Your task to perform on an android device: Open Wikipedia Image 0: 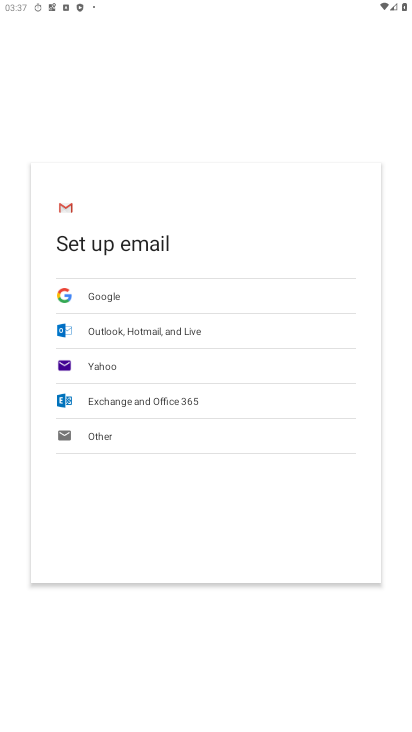
Step 0: press home button
Your task to perform on an android device: Open Wikipedia Image 1: 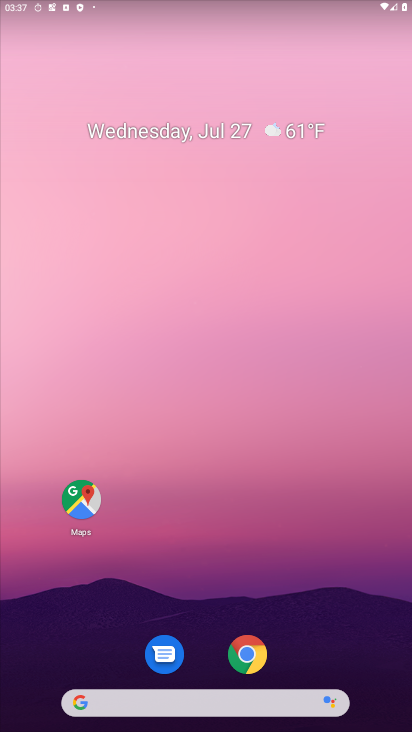
Step 1: drag from (241, 702) to (270, 48)
Your task to perform on an android device: Open Wikipedia Image 2: 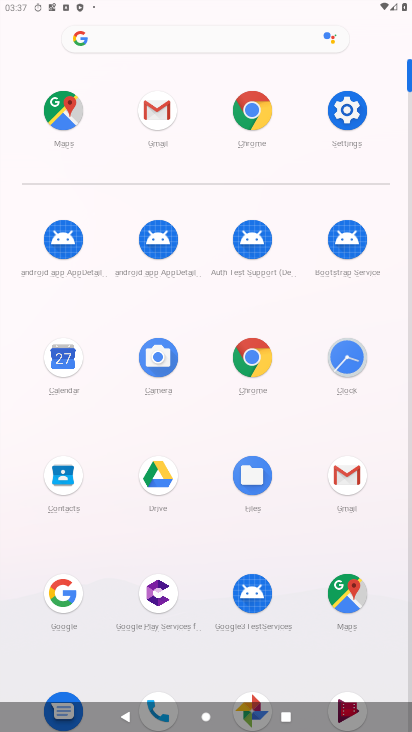
Step 2: click (263, 359)
Your task to perform on an android device: Open Wikipedia Image 3: 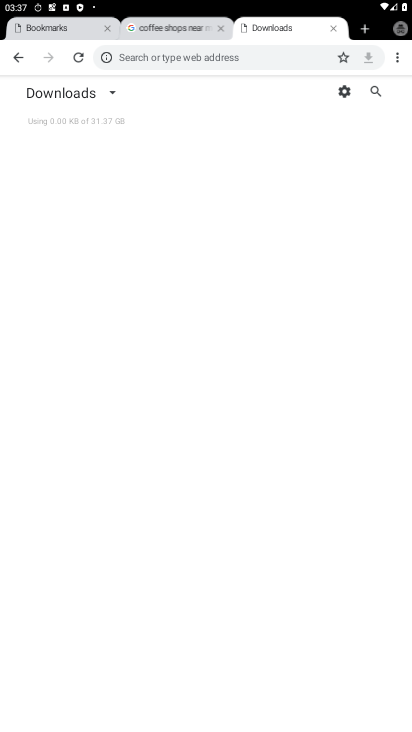
Step 3: click (208, 46)
Your task to perform on an android device: Open Wikipedia Image 4: 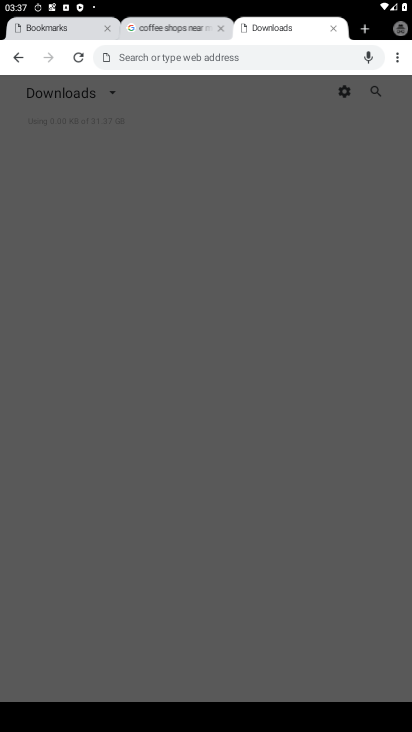
Step 4: type "wikipedia"
Your task to perform on an android device: Open Wikipedia Image 5: 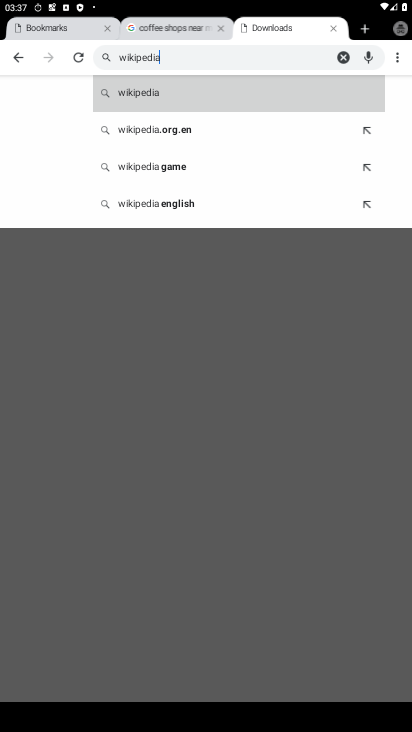
Step 5: click (169, 88)
Your task to perform on an android device: Open Wikipedia Image 6: 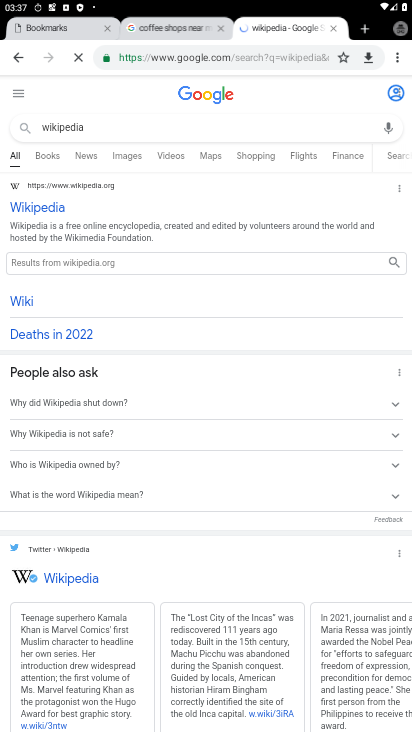
Step 6: task complete